Your task to perform on an android device: Is it going to rain this weekend? Image 0: 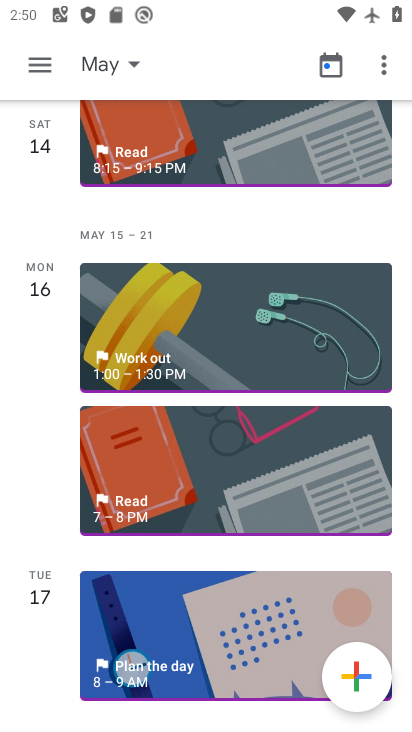
Step 0: press home button
Your task to perform on an android device: Is it going to rain this weekend? Image 1: 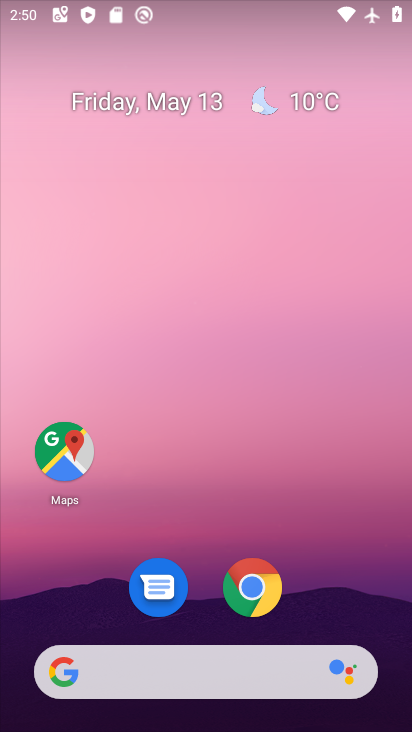
Step 1: click (221, 659)
Your task to perform on an android device: Is it going to rain this weekend? Image 2: 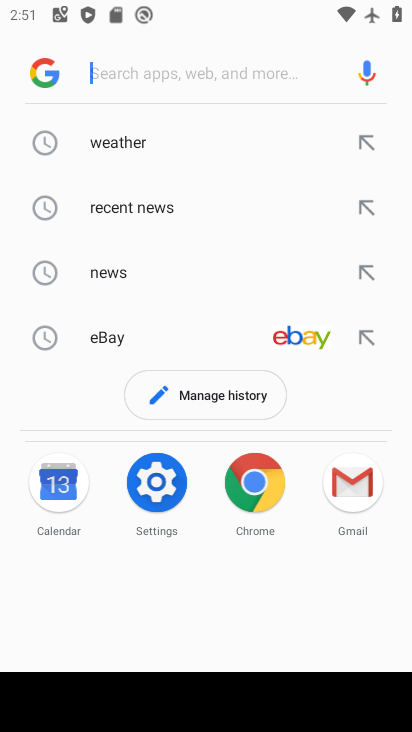
Step 2: type "is it going to rain this weekend"
Your task to perform on an android device: Is it going to rain this weekend? Image 3: 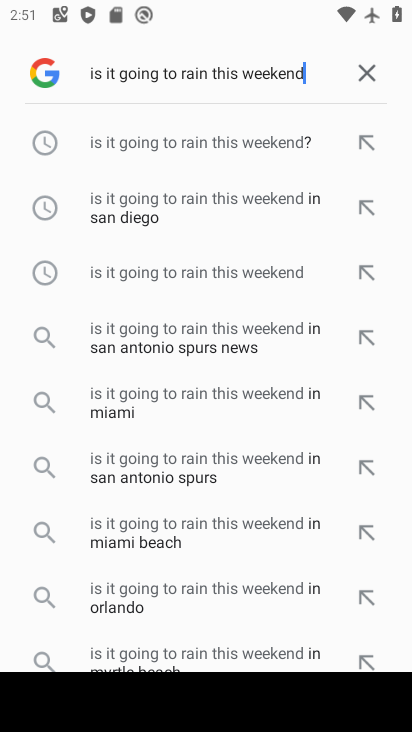
Step 3: click (63, 151)
Your task to perform on an android device: Is it going to rain this weekend? Image 4: 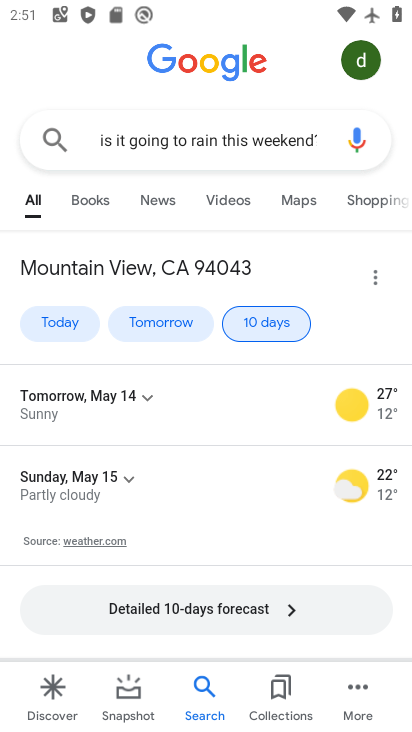
Step 4: task complete